Your task to perform on an android device: Go to notification settings Image 0: 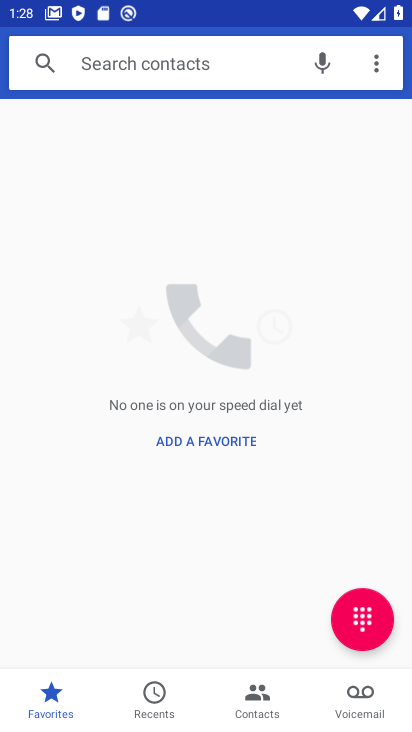
Step 0: press home button
Your task to perform on an android device: Go to notification settings Image 1: 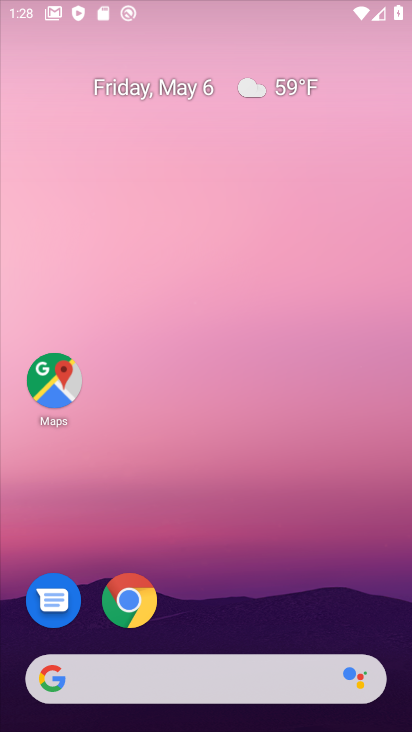
Step 1: drag from (242, 601) to (293, 30)
Your task to perform on an android device: Go to notification settings Image 2: 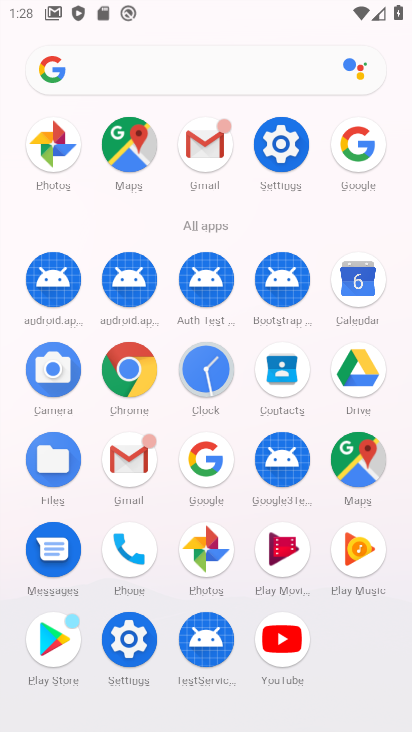
Step 2: click (280, 137)
Your task to perform on an android device: Go to notification settings Image 3: 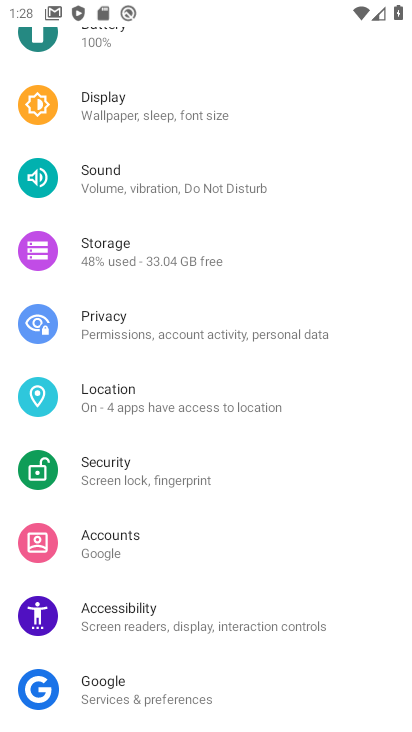
Step 3: drag from (189, 170) to (230, 458)
Your task to perform on an android device: Go to notification settings Image 4: 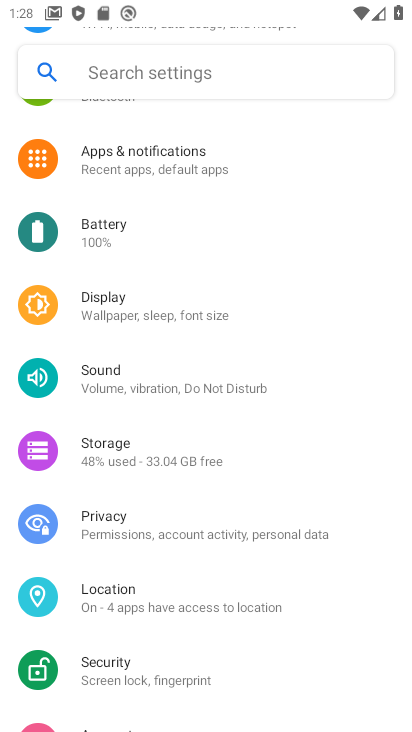
Step 4: click (128, 167)
Your task to perform on an android device: Go to notification settings Image 5: 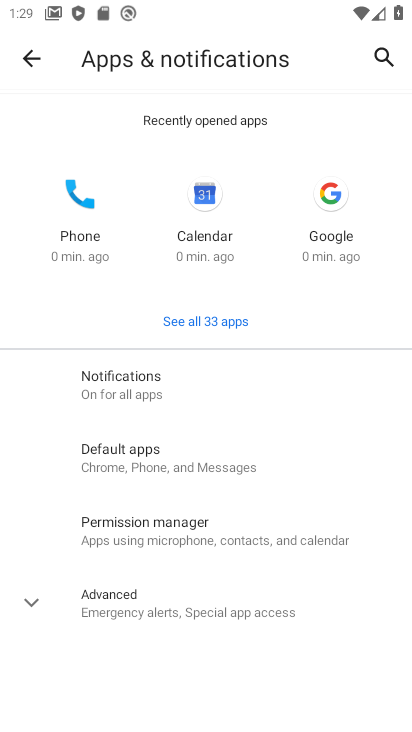
Step 5: click (153, 386)
Your task to perform on an android device: Go to notification settings Image 6: 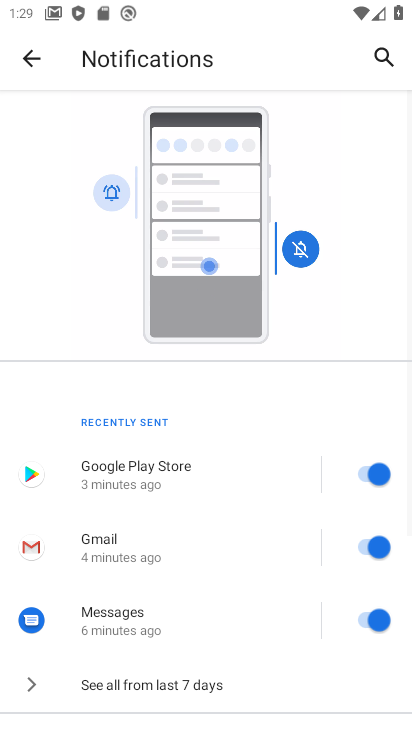
Step 6: task complete